Your task to perform on an android device: Clear the shopping cart on newegg.com. Add razer deathadder to the cart on newegg.com, then select checkout. Image 0: 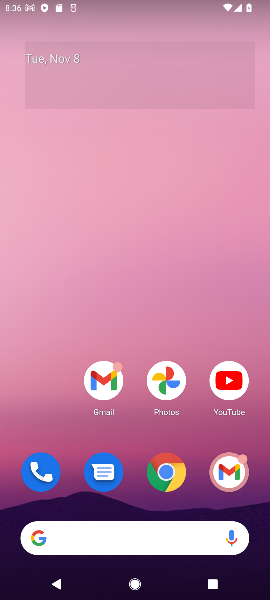
Step 0: press home button
Your task to perform on an android device: Clear the shopping cart on newegg.com. Add razer deathadder to the cart on newegg.com, then select checkout. Image 1: 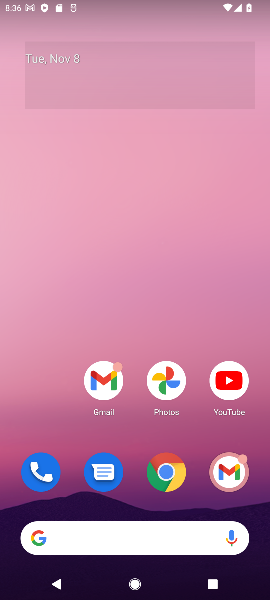
Step 1: click (165, 468)
Your task to perform on an android device: Clear the shopping cart on newegg.com. Add razer deathadder to the cart on newegg.com, then select checkout. Image 2: 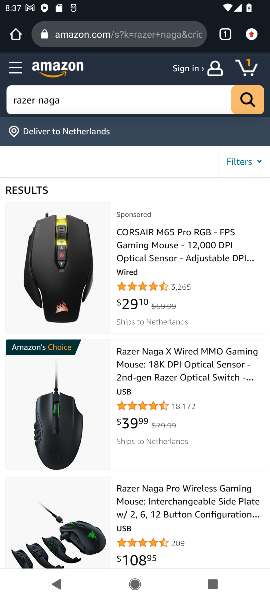
Step 2: click (139, 35)
Your task to perform on an android device: Clear the shopping cart on newegg.com. Add razer deathadder to the cart on newegg.com, then select checkout. Image 3: 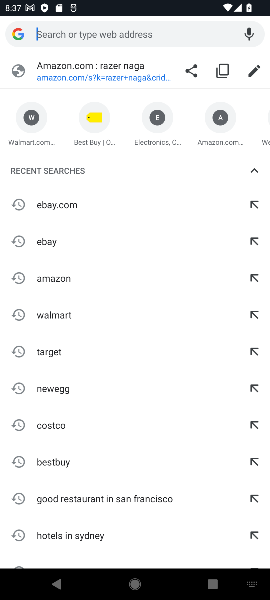
Step 3: click (50, 383)
Your task to perform on an android device: Clear the shopping cart on newegg.com. Add razer deathadder to the cart on newegg.com, then select checkout. Image 4: 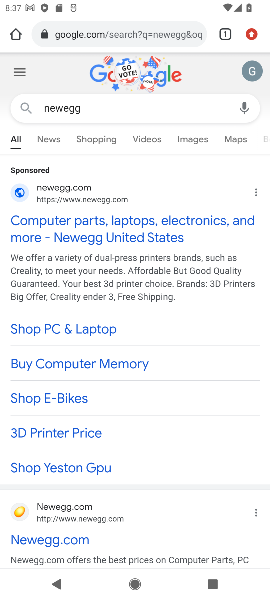
Step 4: click (46, 535)
Your task to perform on an android device: Clear the shopping cart on newegg.com. Add razer deathadder to the cart on newegg.com, then select checkout. Image 5: 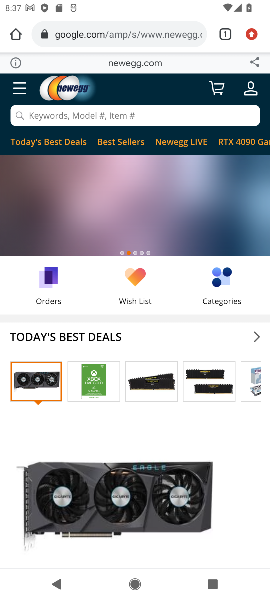
Step 5: click (136, 112)
Your task to perform on an android device: Clear the shopping cart on newegg.com. Add razer deathadder to the cart on newegg.com, then select checkout. Image 6: 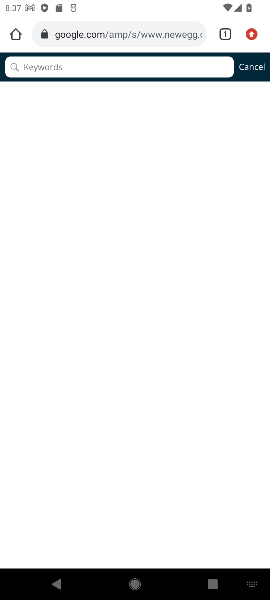
Step 6: click (44, 64)
Your task to perform on an android device: Clear the shopping cart on newegg.com. Add razer deathadder to the cart on newegg.com, then select checkout. Image 7: 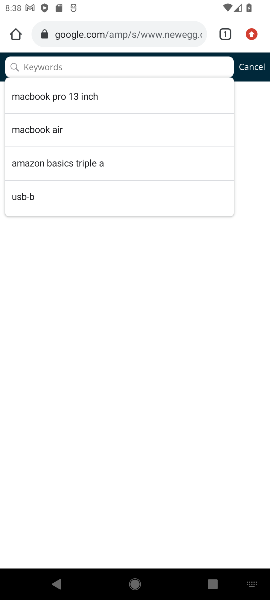
Step 7: type "razer deathadder"
Your task to perform on an android device: Clear the shopping cart on newegg.com. Add razer deathadder to the cart on newegg.com, then select checkout. Image 8: 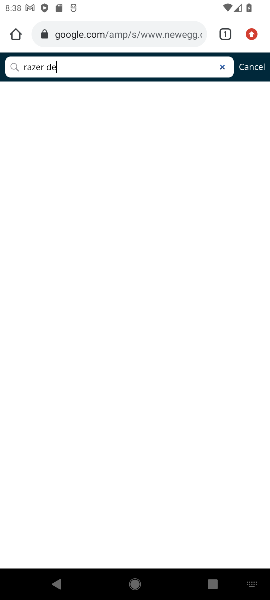
Step 8: press enter
Your task to perform on an android device: Clear the shopping cart on newegg.com. Add razer deathadder to the cart on newegg.com, then select checkout. Image 9: 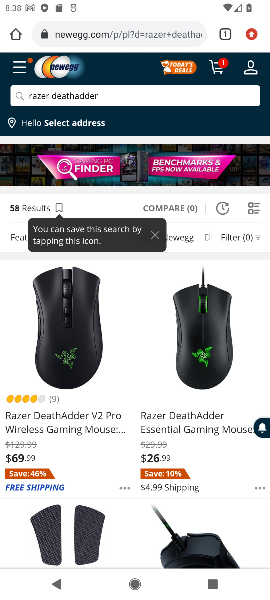
Step 9: click (78, 379)
Your task to perform on an android device: Clear the shopping cart on newegg.com. Add razer deathadder to the cart on newegg.com, then select checkout. Image 10: 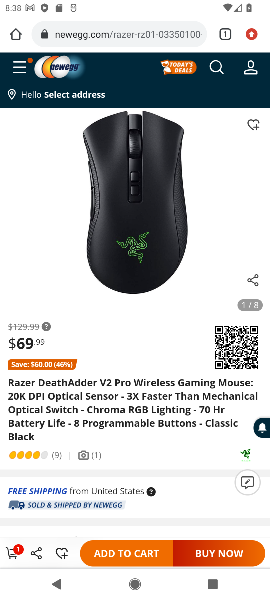
Step 10: click (138, 551)
Your task to perform on an android device: Clear the shopping cart on newegg.com. Add razer deathadder to the cart on newegg.com, then select checkout. Image 11: 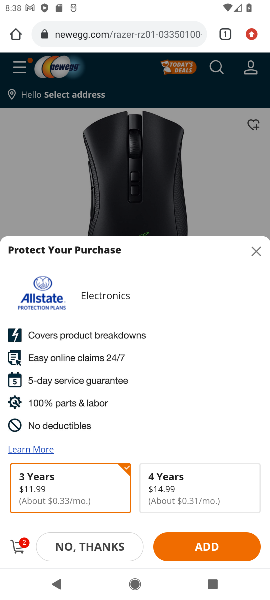
Step 11: click (16, 542)
Your task to perform on an android device: Clear the shopping cart on newegg.com. Add razer deathadder to the cart on newegg.com, then select checkout. Image 12: 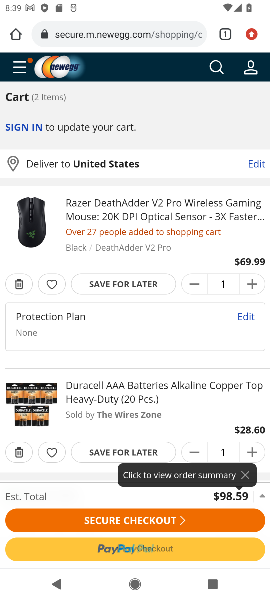
Step 12: click (18, 451)
Your task to perform on an android device: Clear the shopping cart on newegg.com. Add razer deathadder to the cart on newegg.com, then select checkout. Image 13: 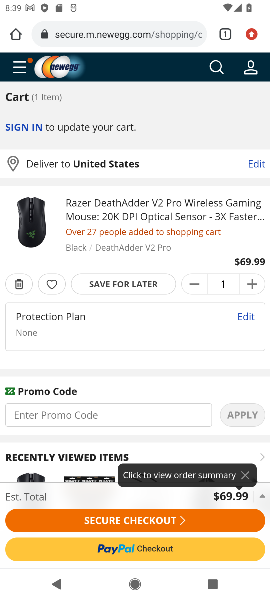
Step 13: click (140, 517)
Your task to perform on an android device: Clear the shopping cart on newegg.com. Add razer deathadder to the cart on newegg.com, then select checkout. Image 14: 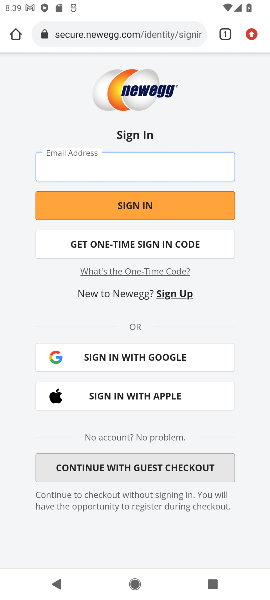
Step 14: task complete